Your task to perform on an android device: Find coffee shops on Maps Image 0: 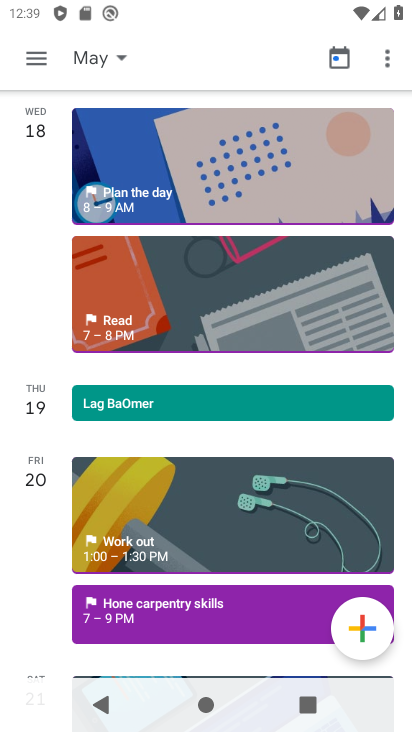
Step 0: press home button
Your task to perform on an android device: Find coffee shops on Maps Image 1: 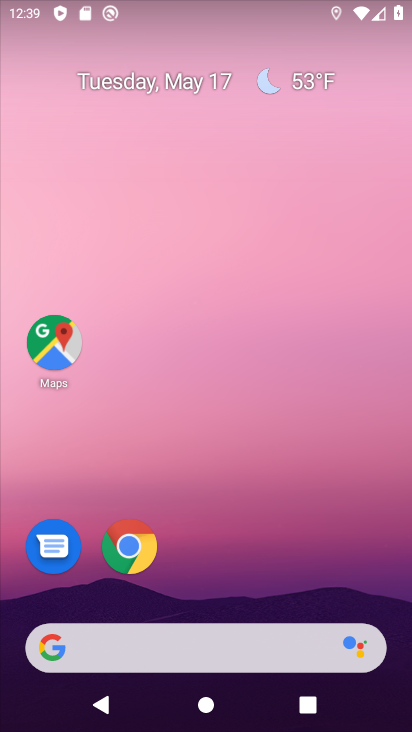
Step 1: click (56, 365)
Your task to perform on an android device: Find coffee shops on Maps Image 2: 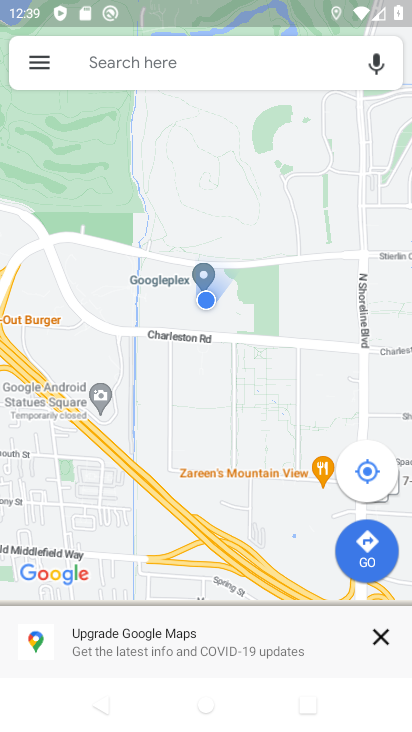
Step 2: click (121, 44)
Your task to perform on an android device: Find coffee shops on Maps Image 3: 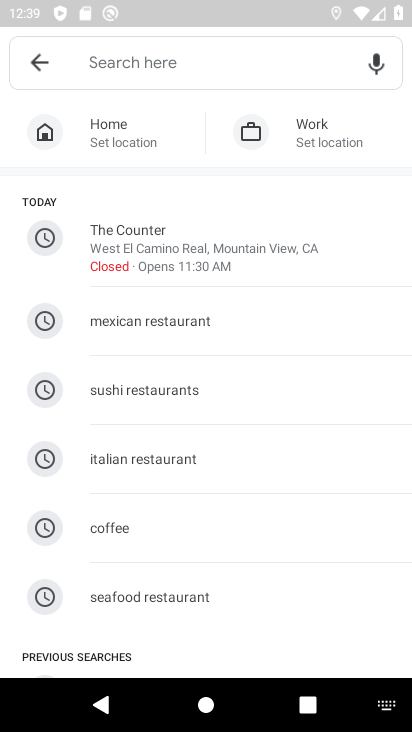
Step 3: type "coffee shops"
Your task to perform on an android device: Find coffee shops on Maps Image 4: 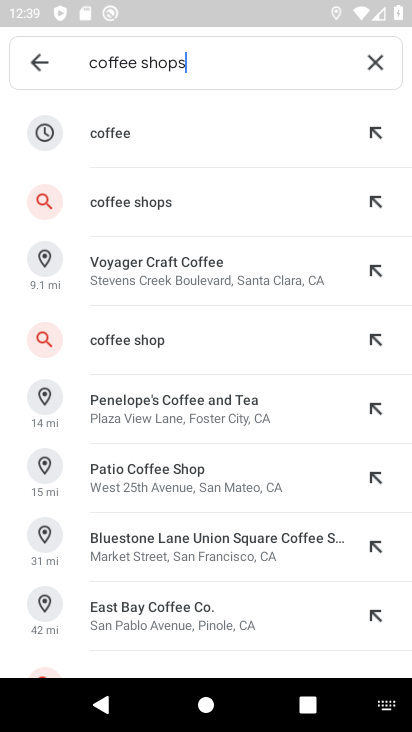
Step 4: click (148, 213)
Your task to perform on an android device: Find coffee shops on Maps Image 5: 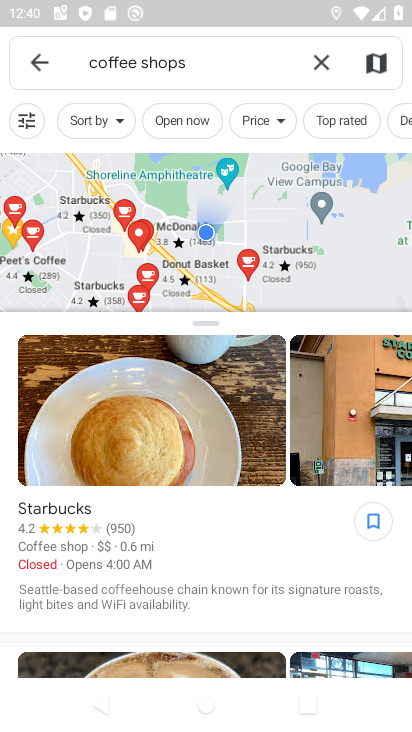
Step 5: task complete